Your task to perform on an android device: What's the weather? Image 0: 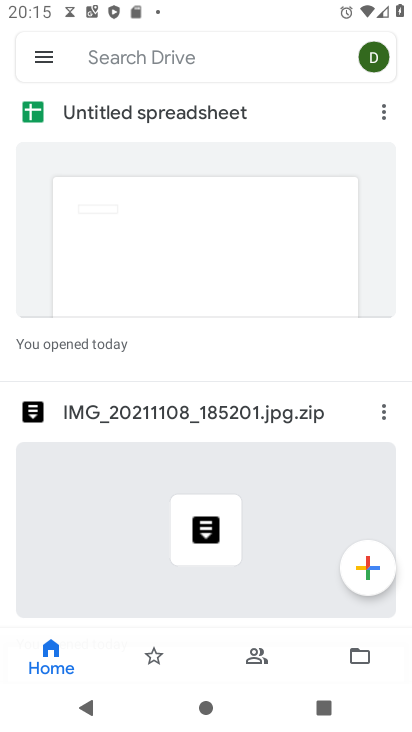
Step 0: press home button
Your task to perform on an android device: What's the weather? Image 1: 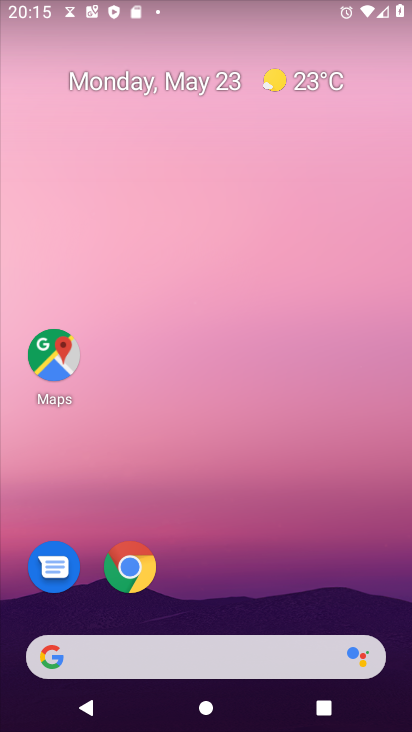
Step 1: click (121, 566)
Your task to perform on an android device: What's the weather? Image 2: 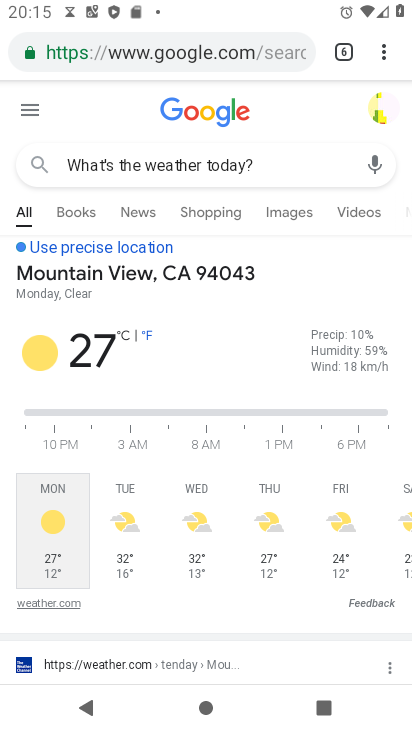
Step 2: click (289, 157)
Your task to perform on an android device: What's the weather? Image 3: 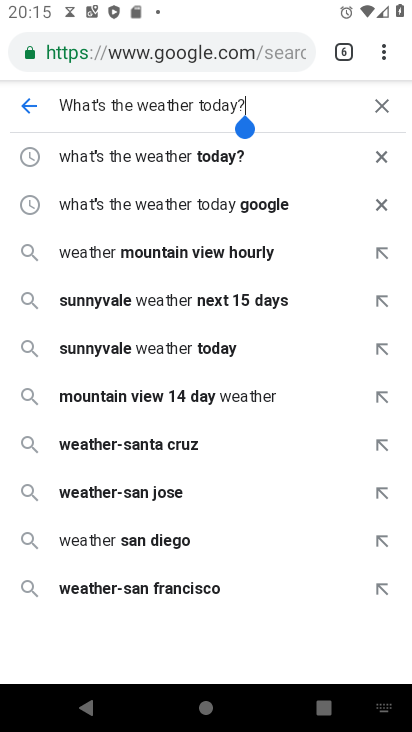
Step 3: click (372, 54)
Your task to perform on an android device: What's the weather? Image 4: 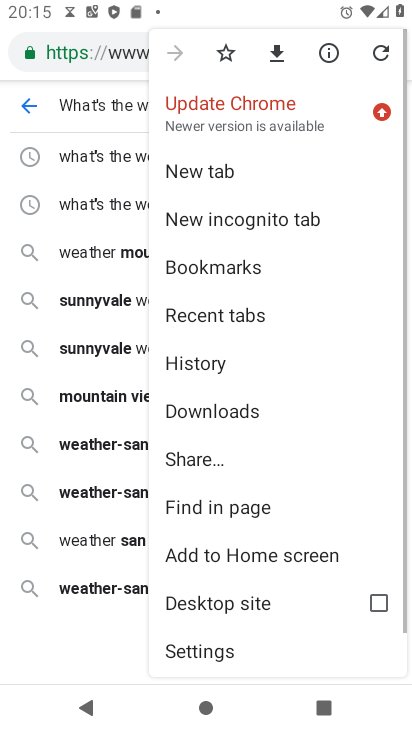
Step 4: click (245, 177)
Your task to perform on an android device: What's the weather? Image 5: 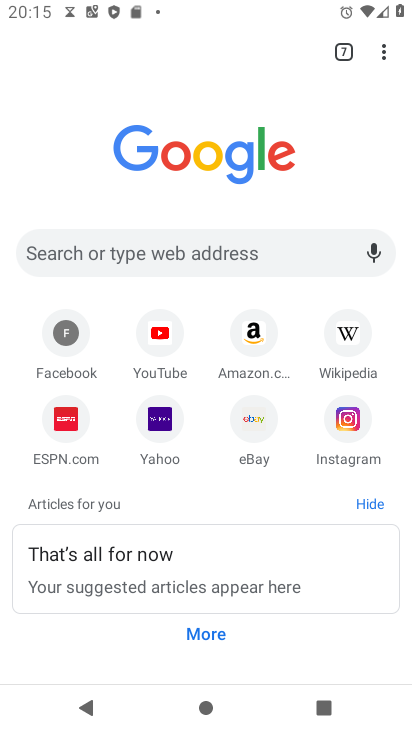
Step 5: drag from (96, 728) to (319, 694)
Your task to perform on an android device: What's the weather? Image 6: 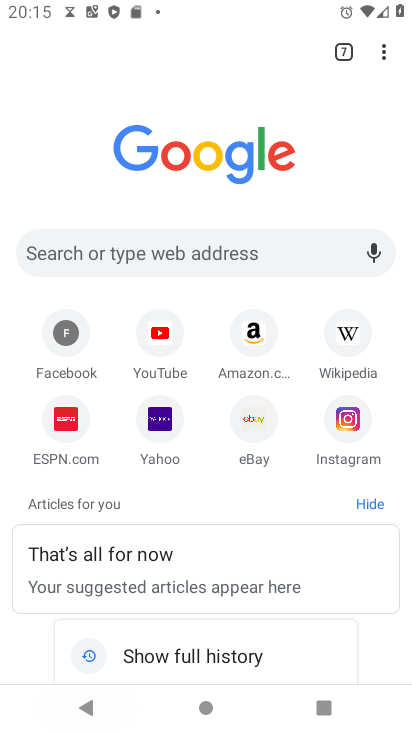
Step 6: click (136, 248)
Your task to perform on an android device: What's the weather? Image 7: 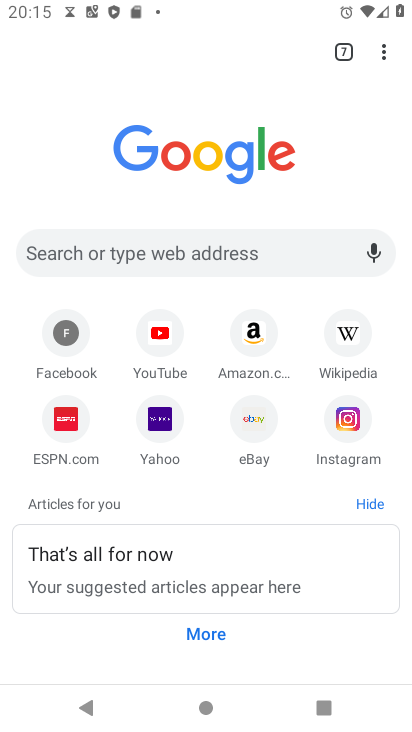
Step 7: type "What's the weather?"
Your task to perform on an android device: What's the weather? Image 8: 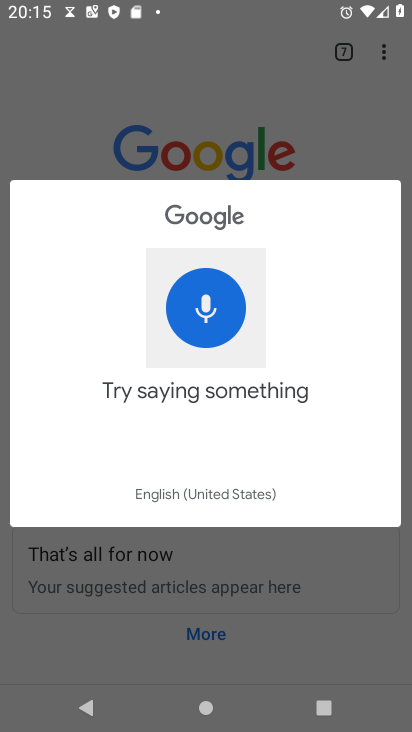
Step 8: click (314, 603)
Your task to perform on an android device: What's the weather? Image 9: 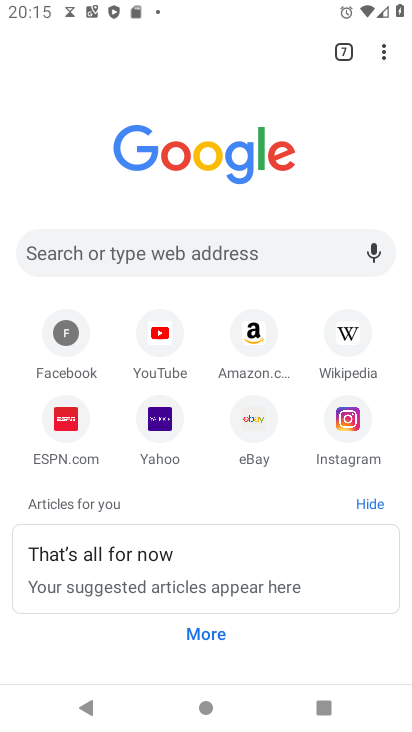
Step 9: click (166, 252)
Your task to perform on an android device: What's the weather? Image 10: 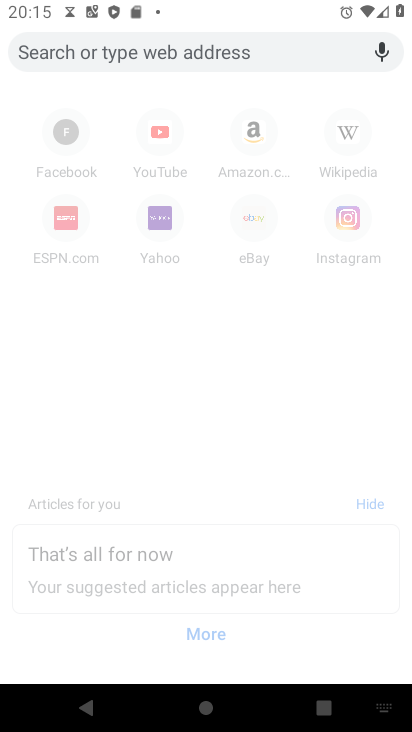
Step 10: type "What's the weather?"
Your task to perform on an android device: What's the weather? Image 11: 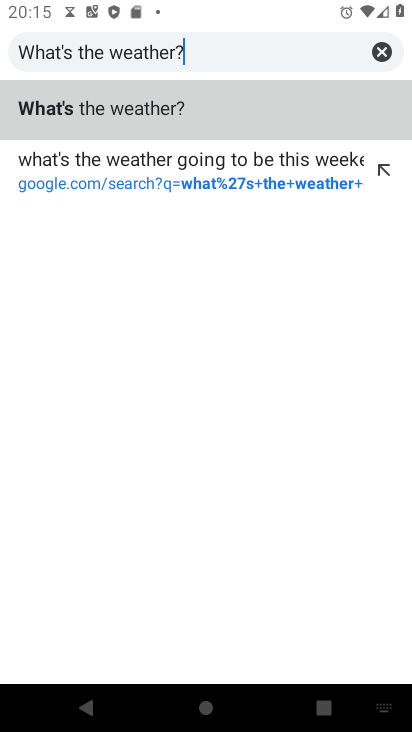
Step 11: click (45, 106)
Your task to perform on an android device: What's the weather? Image 12: 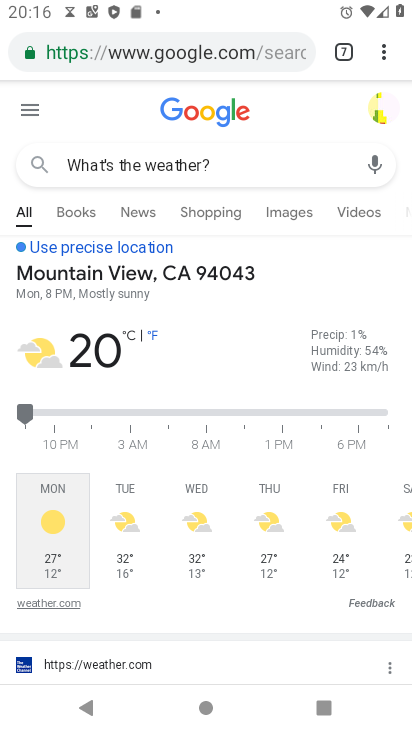
Step 12: task complete